Your task to perform on an android device: open chrome and create a bookmark for the current page Image 0: 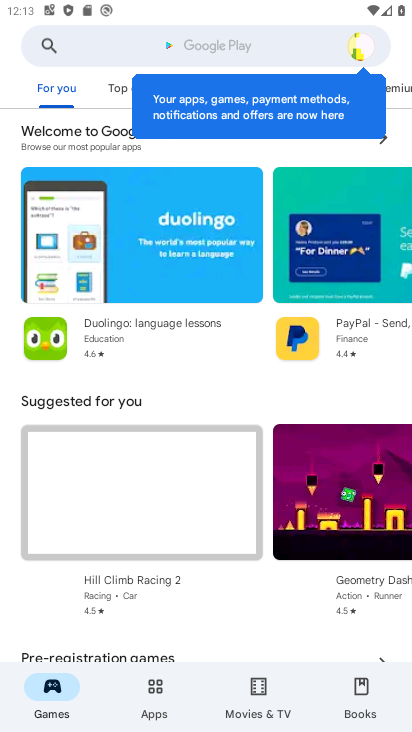
Step 0: press home button
Your task to perform on an android device: open chrome and create a bookmark for the current page Image 1: 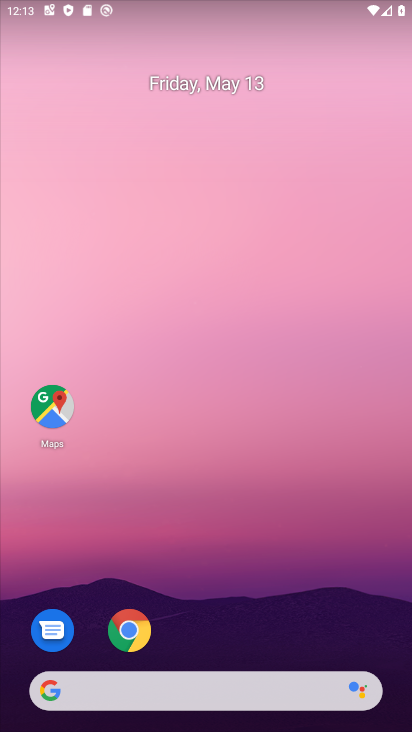
Step 1: drag from (365, 602) to (331, 213)
Your task to perform on an android device: open chrome and create a bookmark for the current page Image 2: 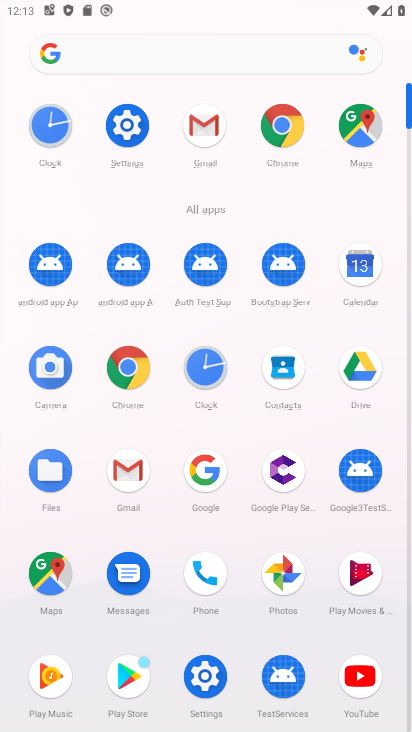
Step 2: click (110, 368)
Your task to perform on an android device: open chrome and create a bookmark for the current page Image 3: 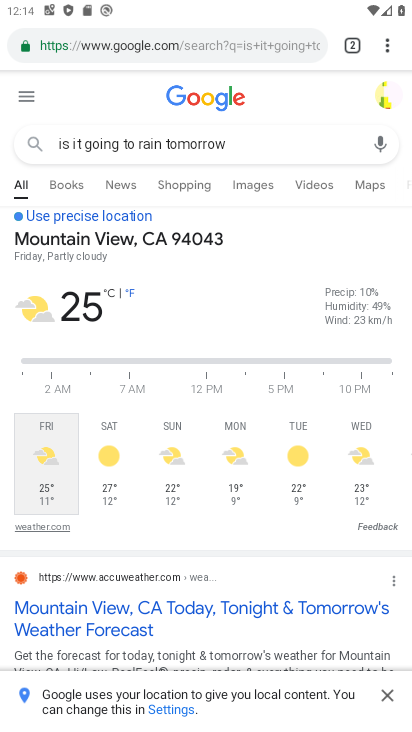
Step 3: task complete